Your task to perform on an android device: Clear the shopping cart on bestbuy. Image 0: 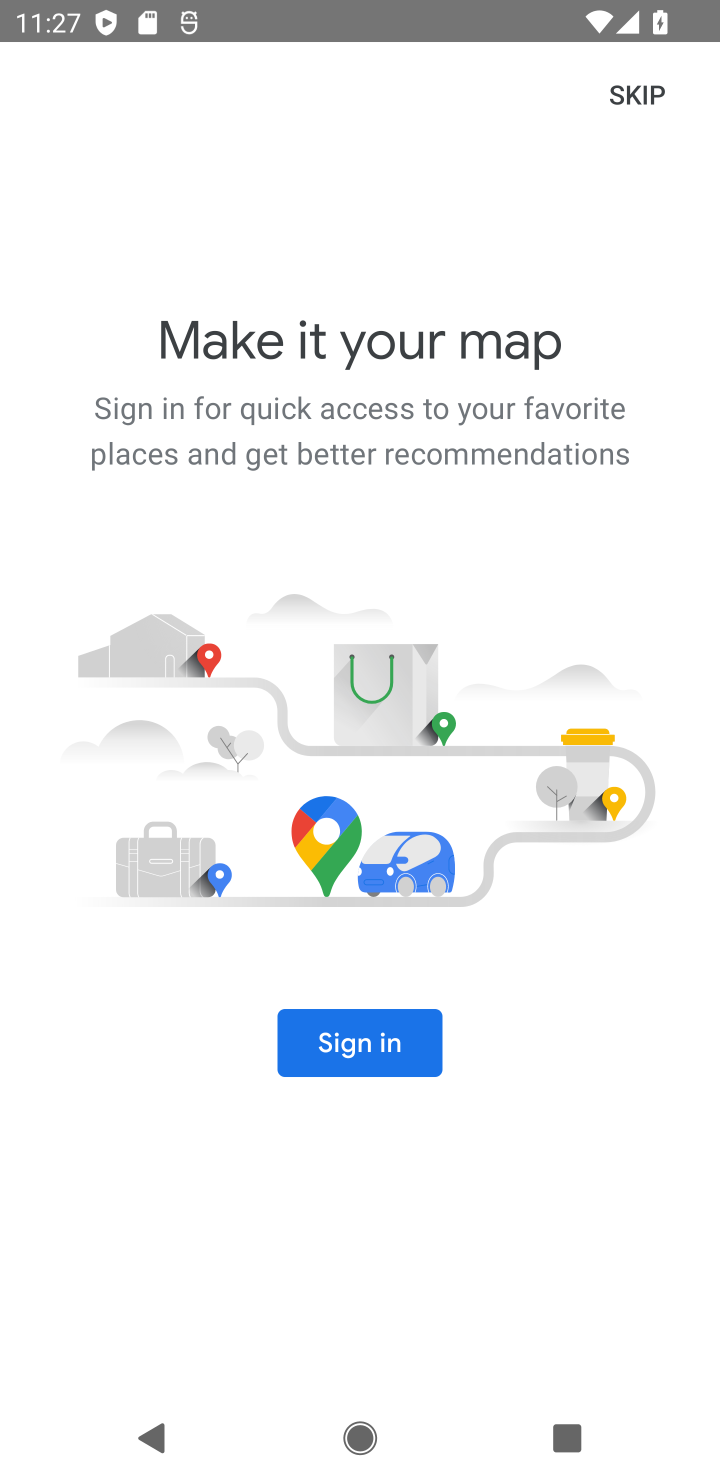
Step 0: click (643, 96)
Your task to perform on an android device: Clear the shopping cart on bestbuy. Image 1: 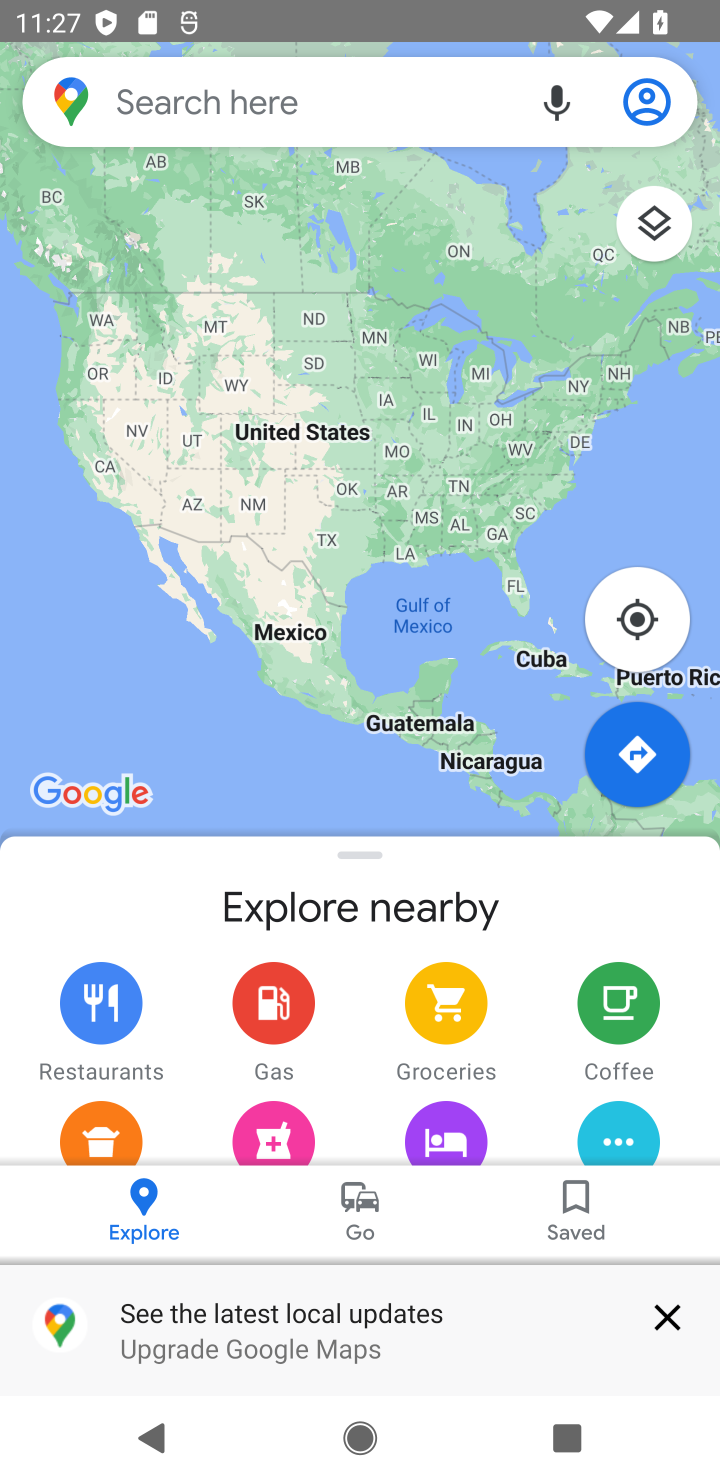
Step 1: press home button
Your task to perform on an android device: Clear the shopping cart on bestbuy. Image 2: 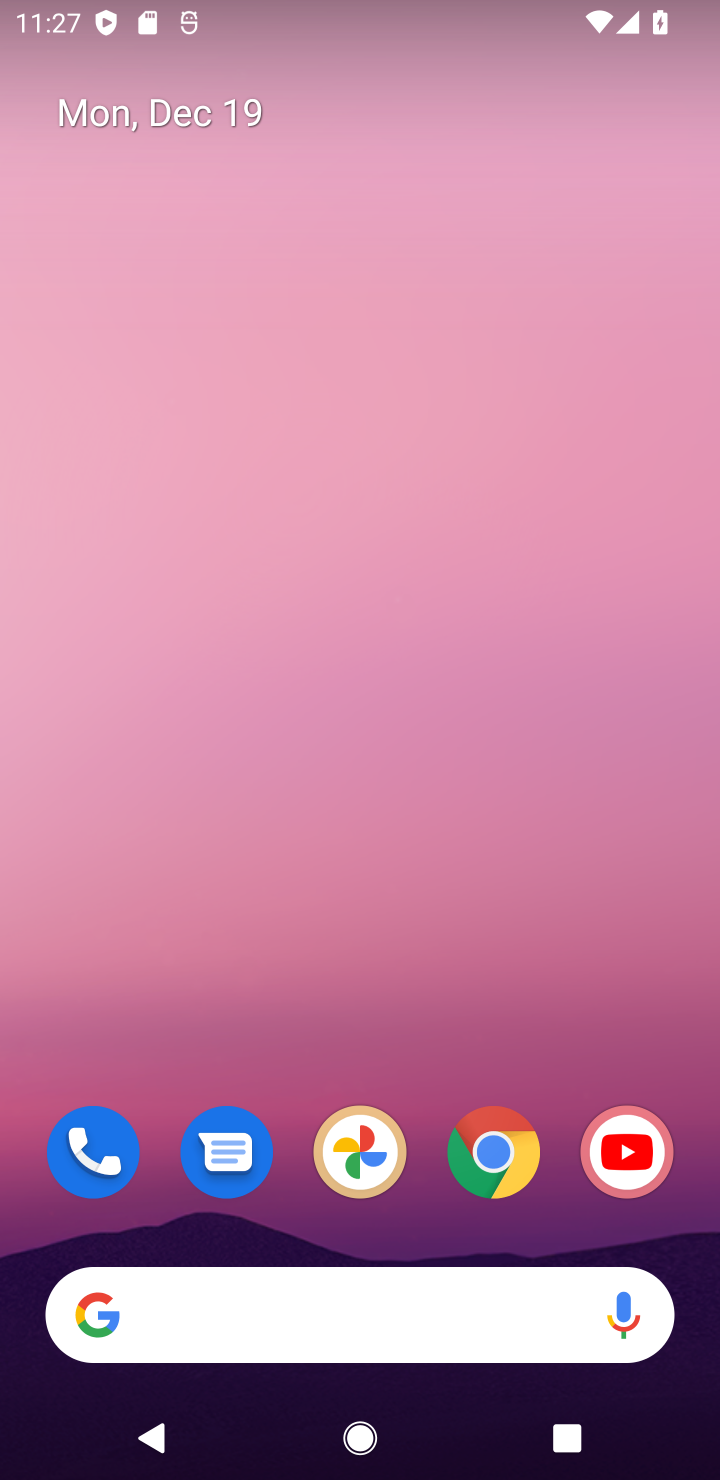
Step 2: click (506, 1150)
Your task to perform on an android device: Clear the shopping cart on bestbuy. Image 3: 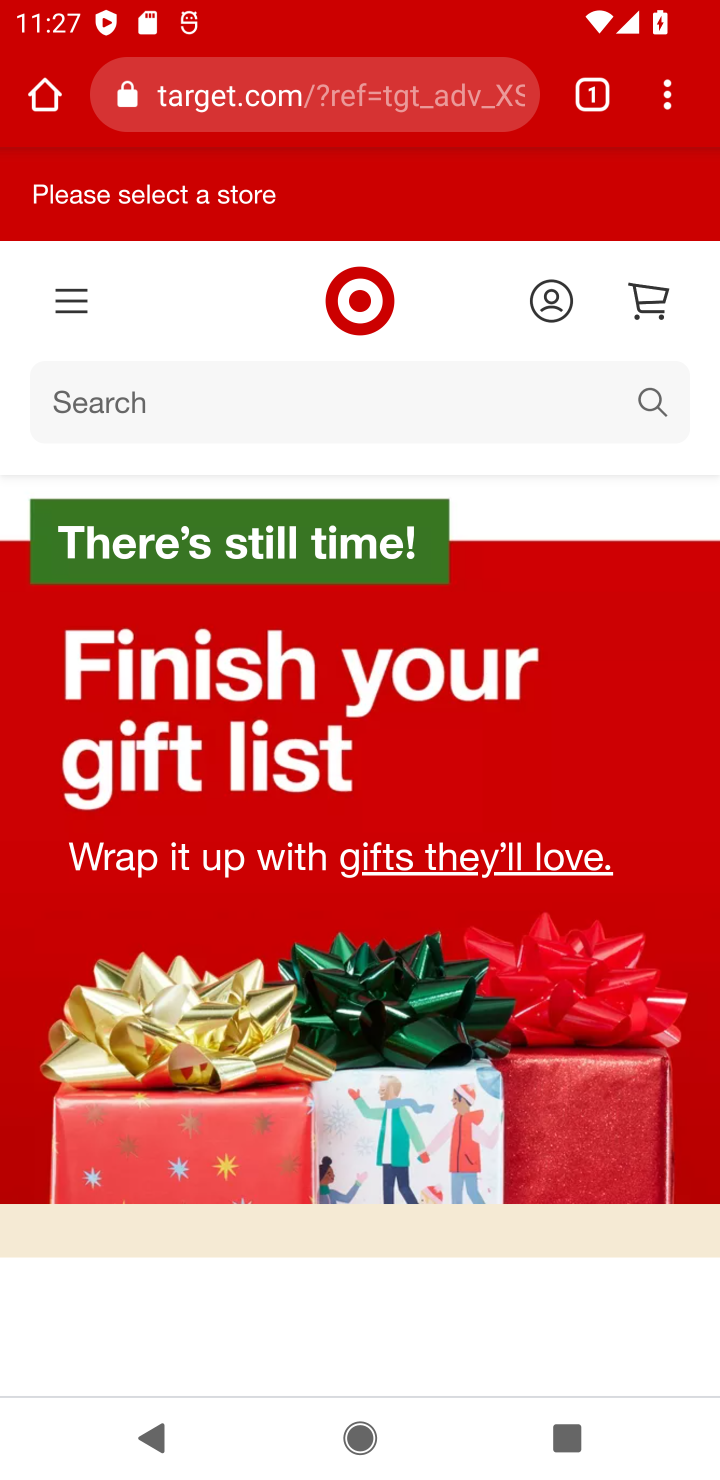
Step 3: click (318, 109)
Your task to perform on an android device: Clear the shopping cart on bestbuy. Image 4: 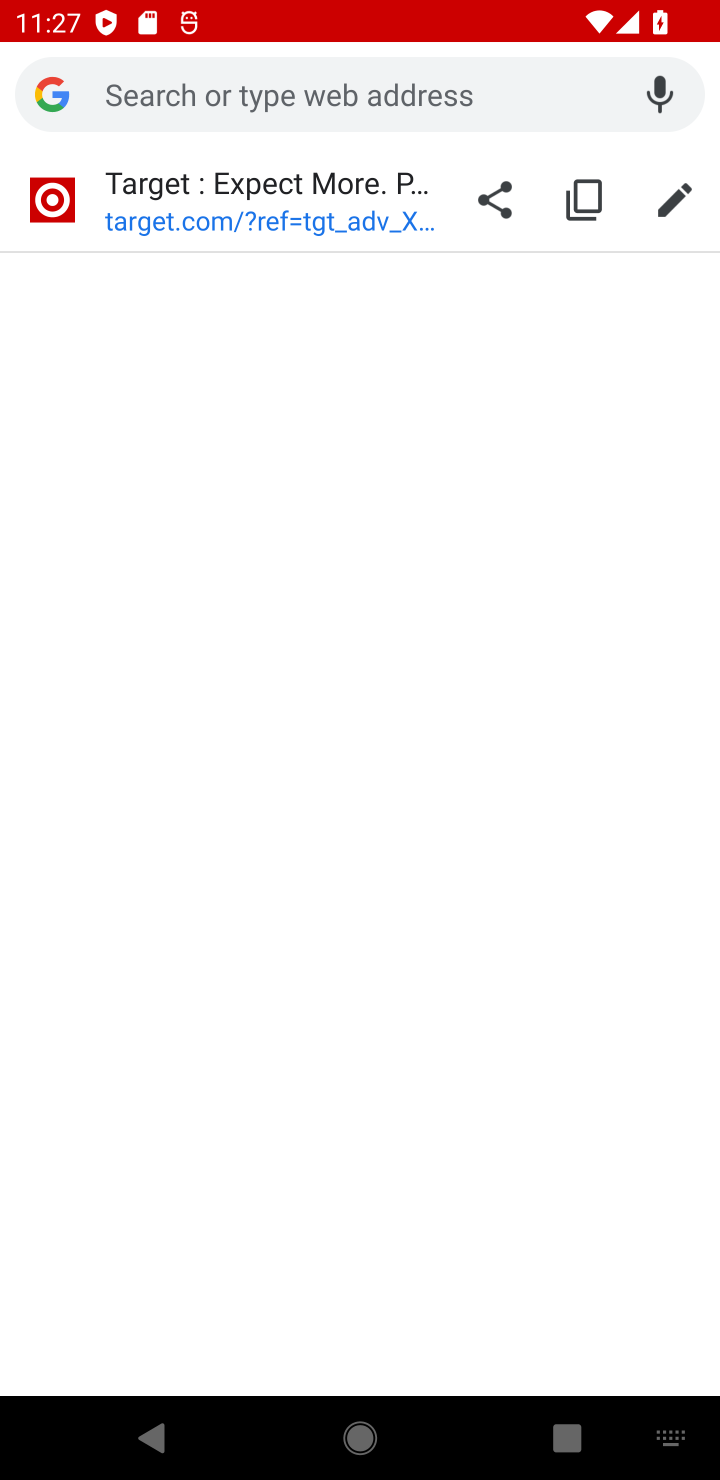
Step 4: type "bestbuy"
Your task to perform on an android device: Clear the shopping cart on bestbuy. Image 5: 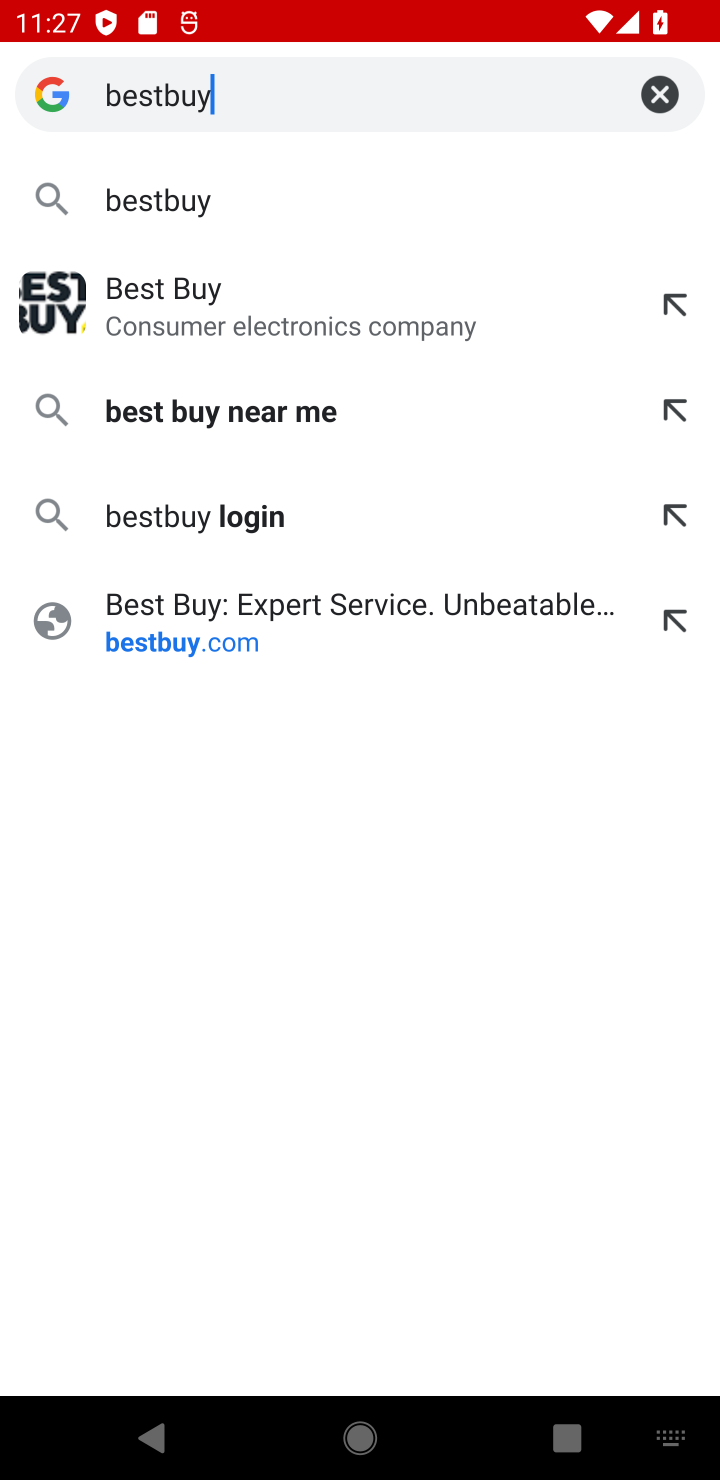
Step 5: click (286, 204)
Your task to perform on an android device: Clear the shopping cart on bestbuy. Image 6: 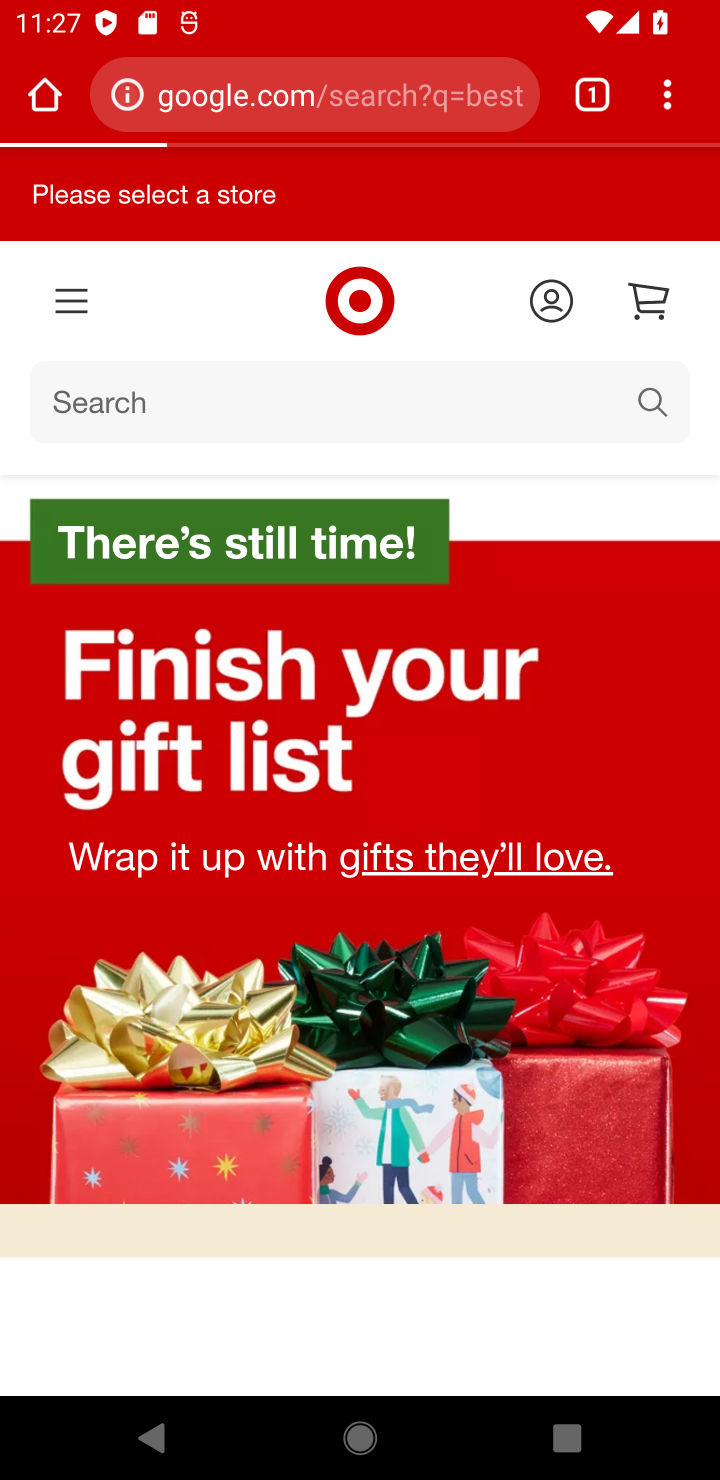
Step 6: click (219, 318)
Your task to perform on an android device: Clear the shopping cart on bestbuy. Image 7: 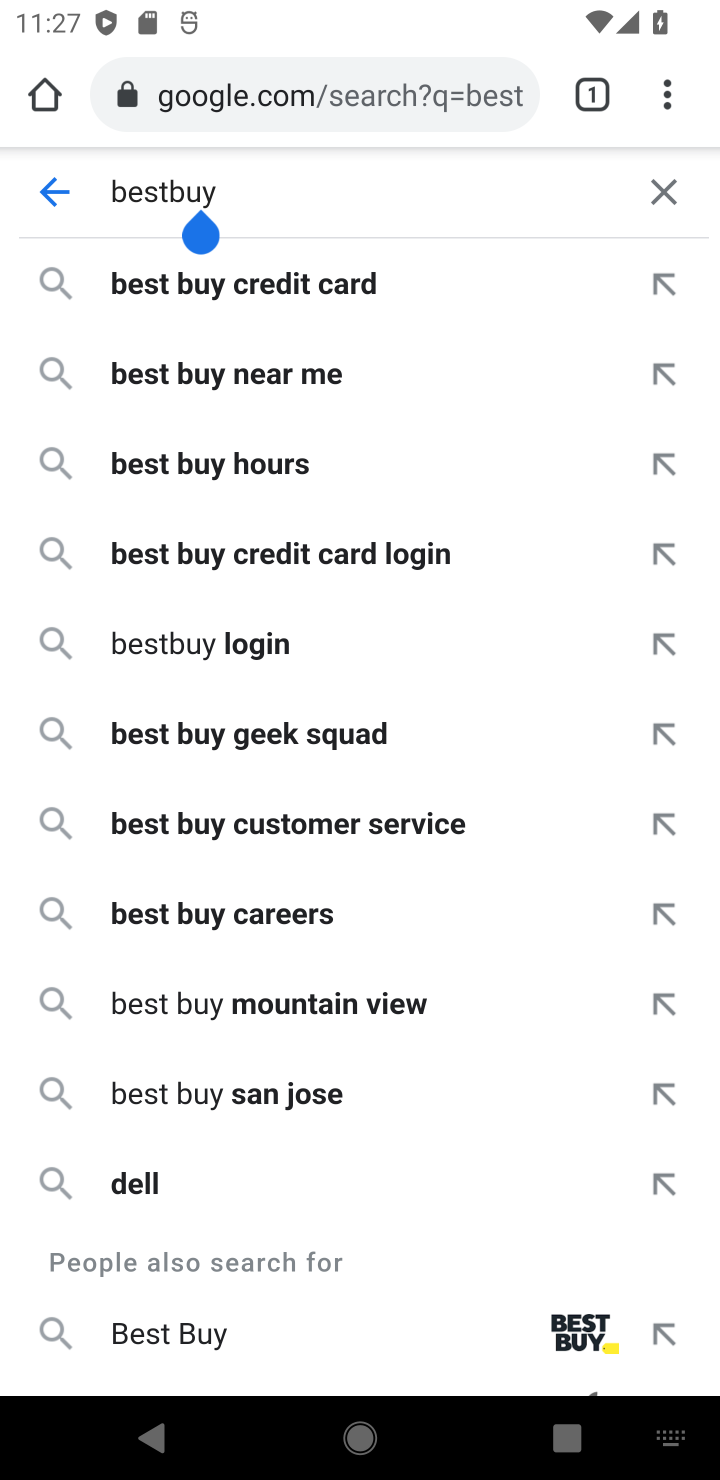
Step 7: click (199, 1344)
Your task to perform on an android device: Clear the shopping cart on bestbuy. Image 8: 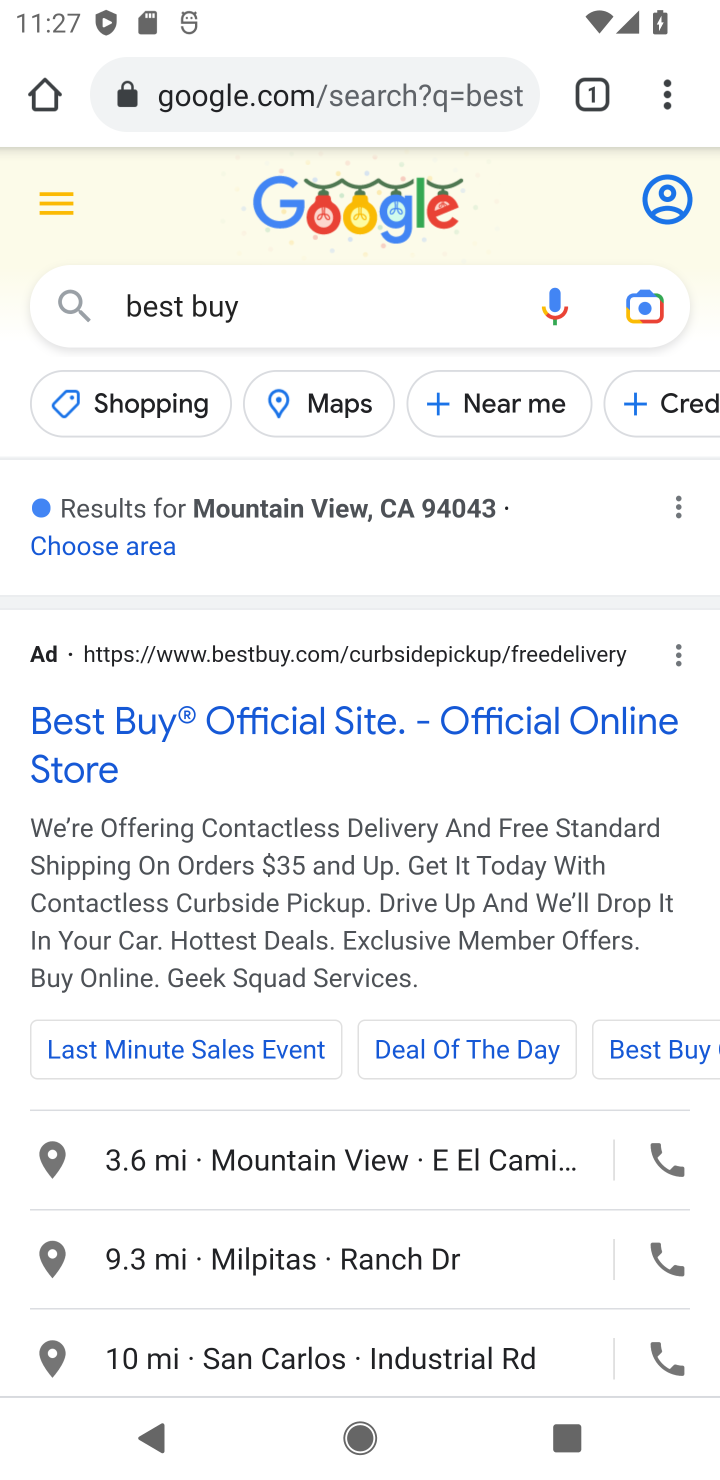
Step 8: click (303, 729)
Your task to perform on an android device: Clear the shopping cart on bestbuy. Image 9: 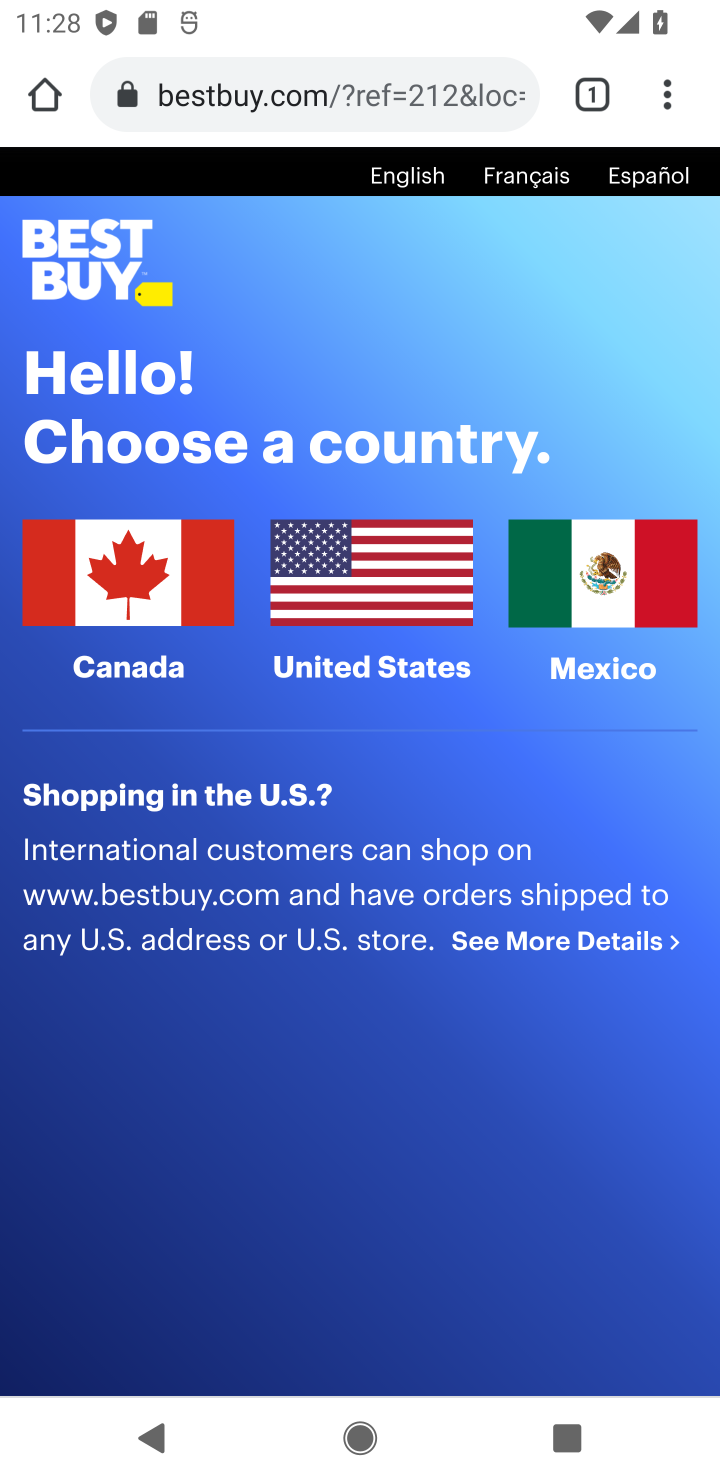
Step 9: click (351, 557)
Your task to perform on an android device: Clear the shopping cart on bestbuy. Image 10: 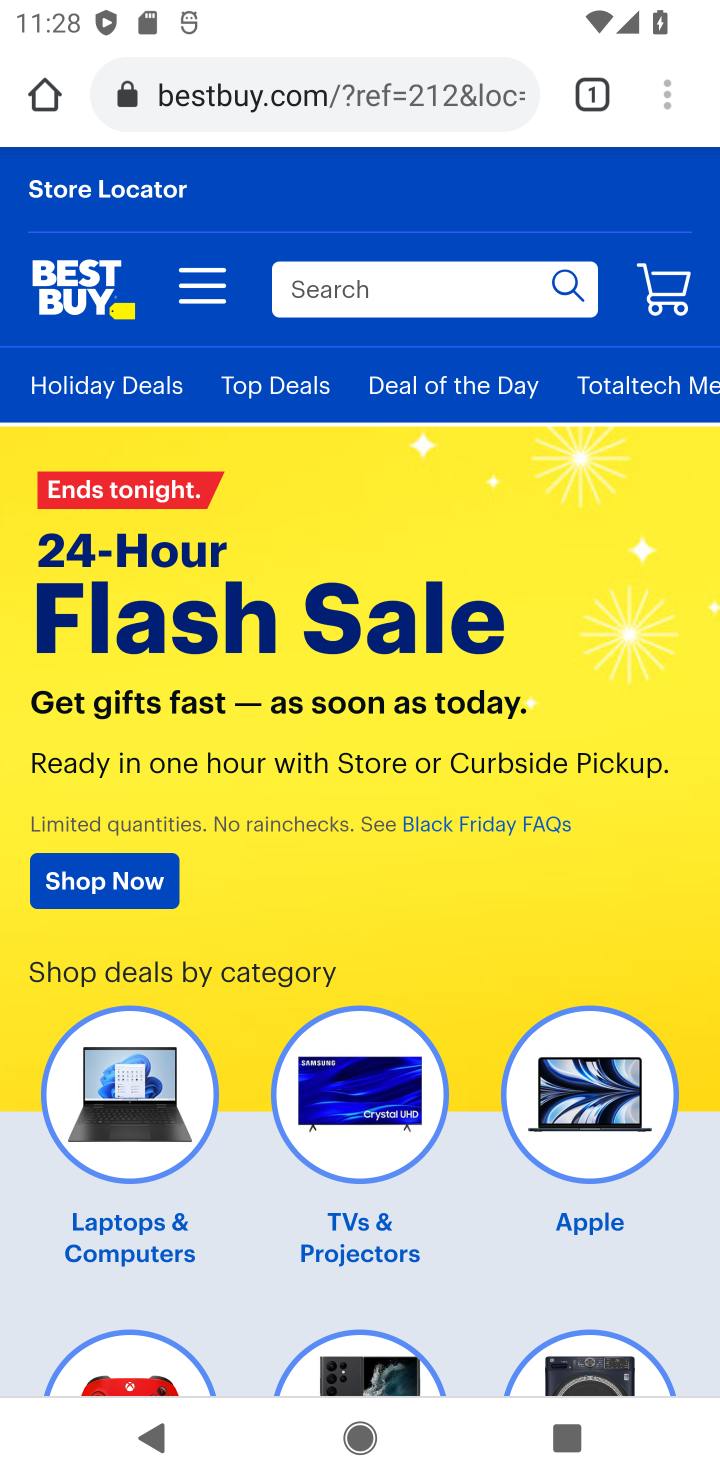
Step 10: click (474, 291)
Your task to perform on an android device: Clear the shopping cart on bestbuy. Image 11: 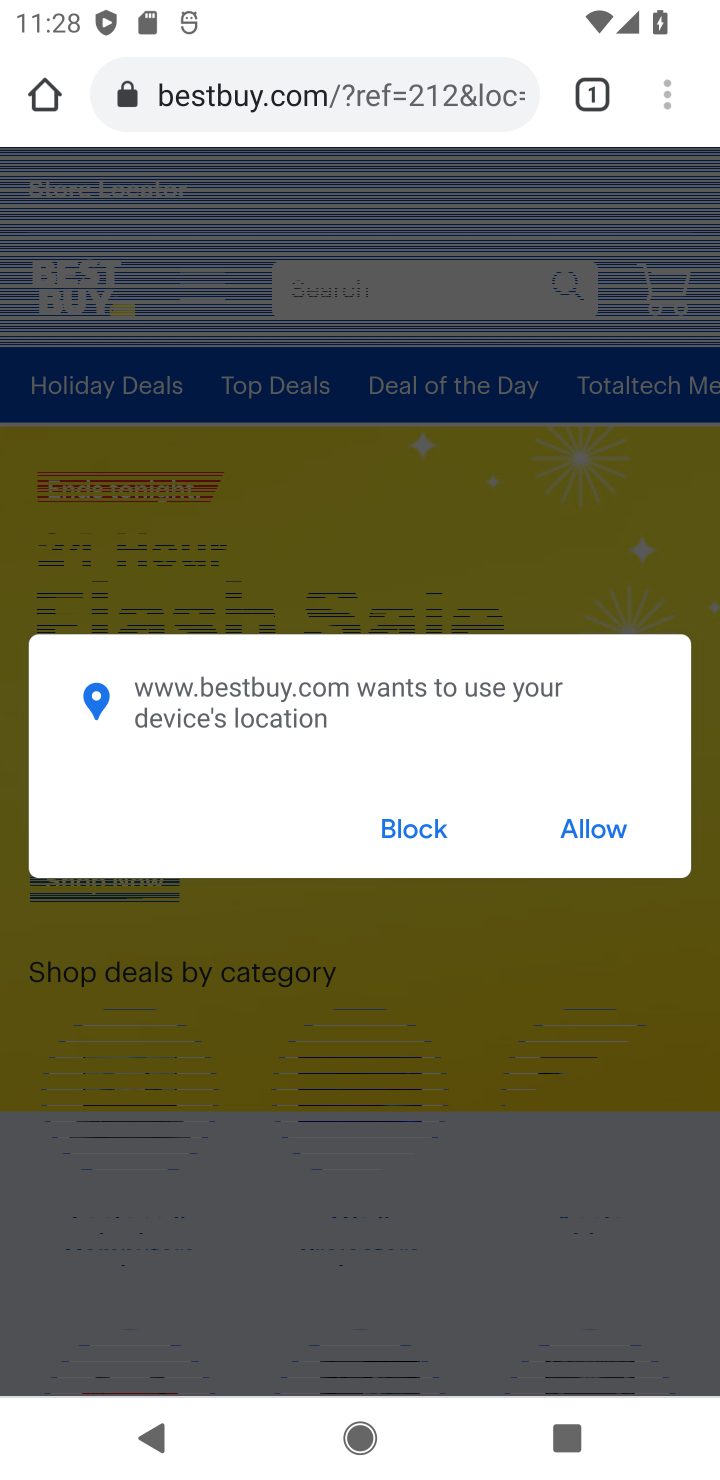
Step 11: click (410, 824)
Your task to perform on an android device: Clear the shopping cart on bestbuy. Image 12: 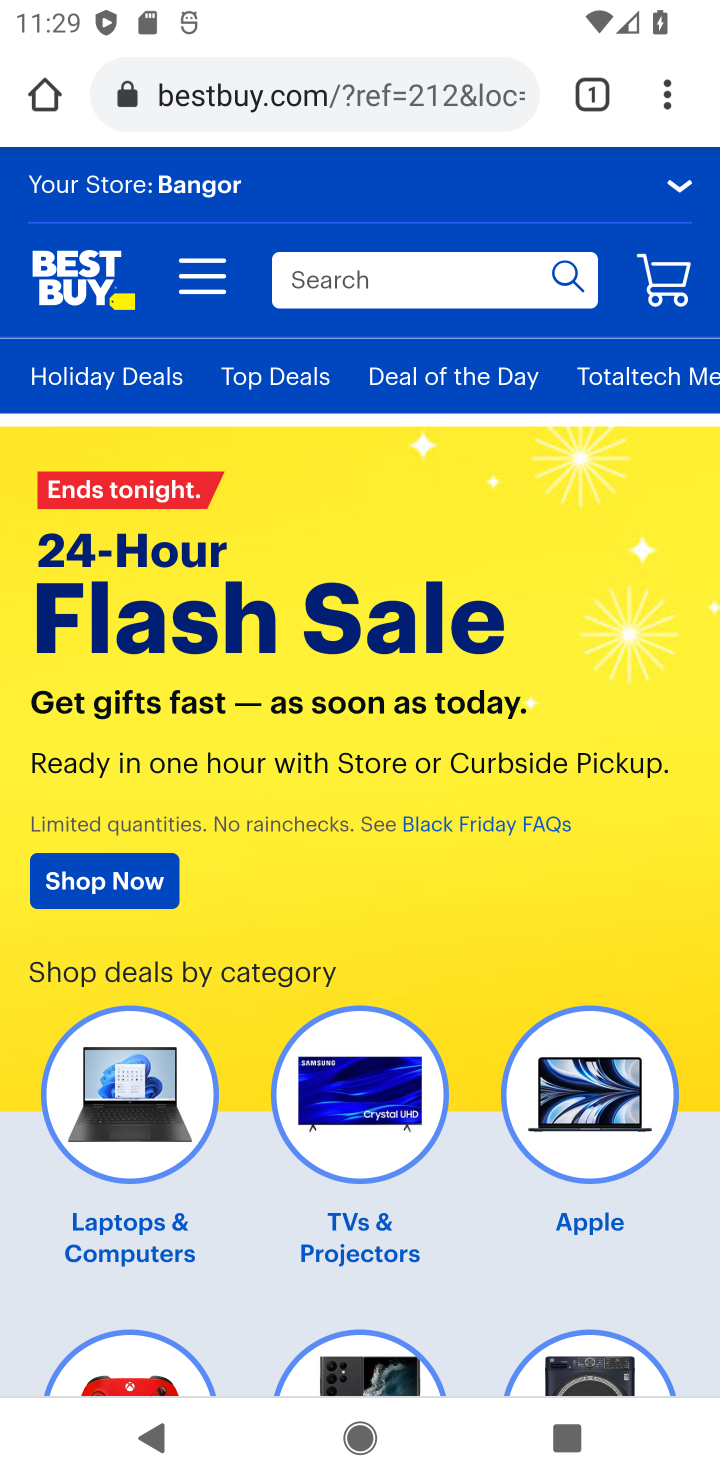
Step 12: task complete